Your task to perform on an android device: Open my contact list Image 0: 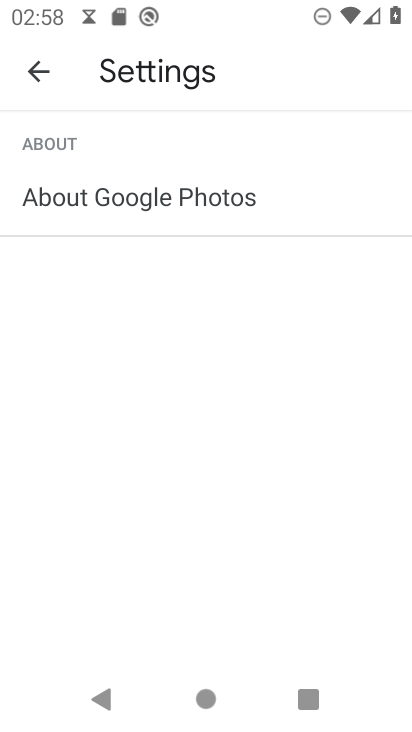
Step 0: press home button
Your task to perform on an android device: Open my contact list Image 1: 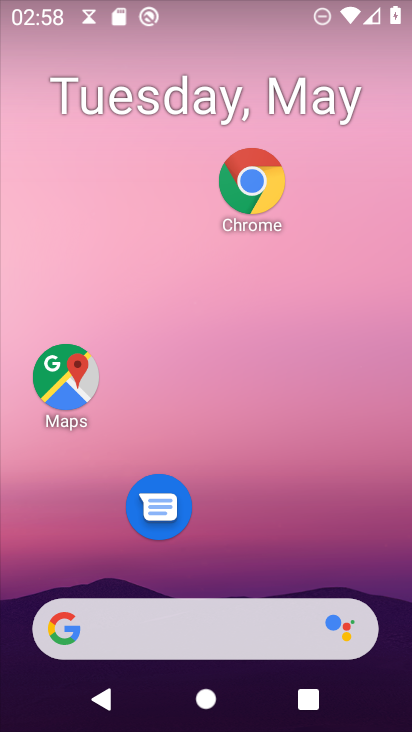
Step 1: drag from (282, 537) to (303, 250)
Your task to perform on an android device: Open my contact list Image 2: 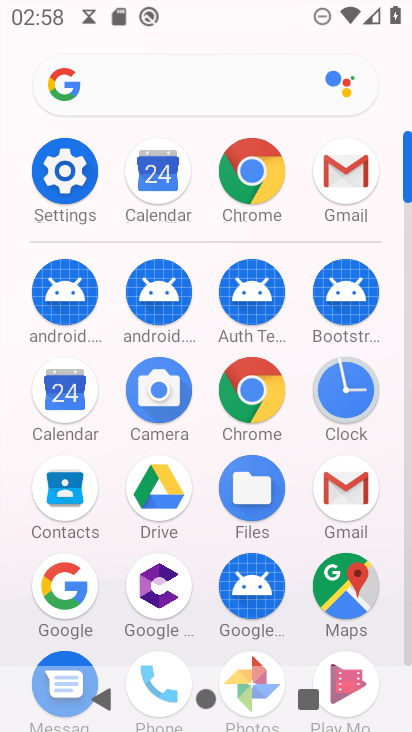
Step 2: drag from (288, 618) to (296, 418)
Your task to perform on an android device: Open my contact list Image 3: 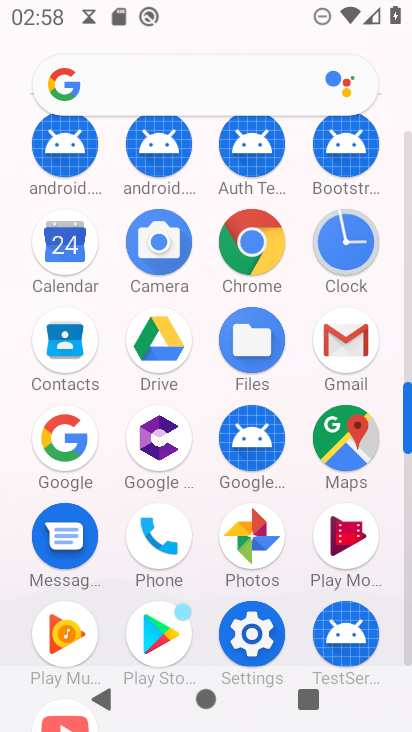
Step 3: drag from (108, 566) to (128, 263)
Your task to perform on an android device: Open my contact list Image 4: 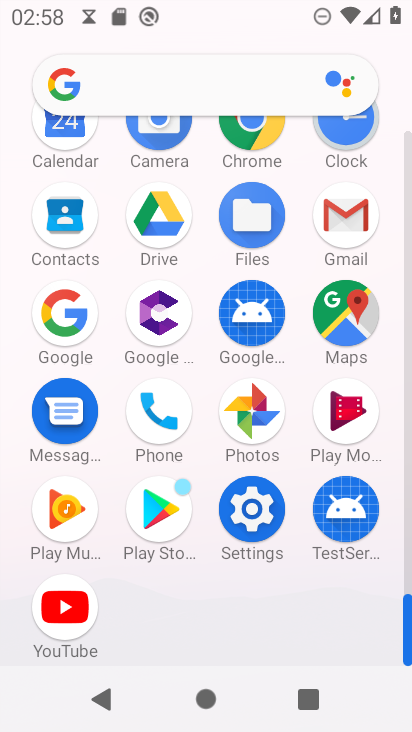
Step 4: drag from (193, 200) to (205, 455)
Your task to perform on an android device: Open my contact list Image 5: 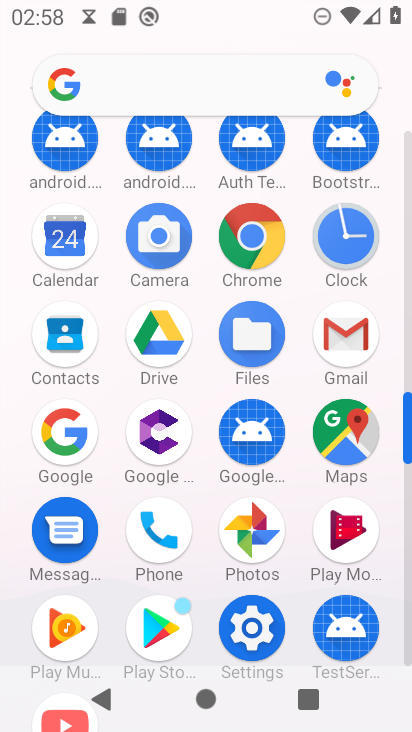
Step 5: click (167, 536)
Your task to perform on an android device: Open my contact list Image 6: 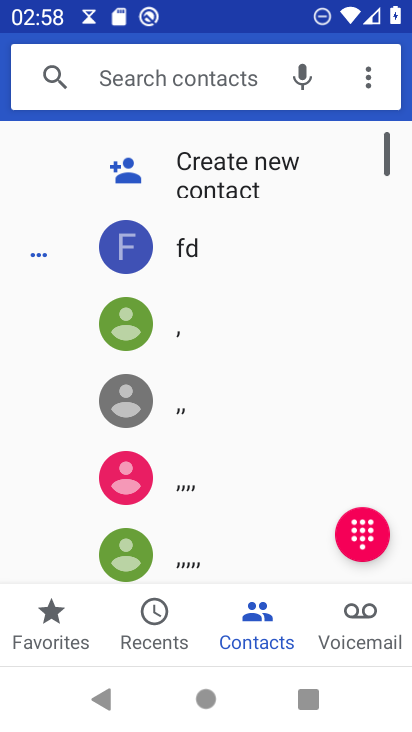
Step 6: task complete